Your task to perform on an android device: Open Google Chrome and open the bookmarks view Image 0: 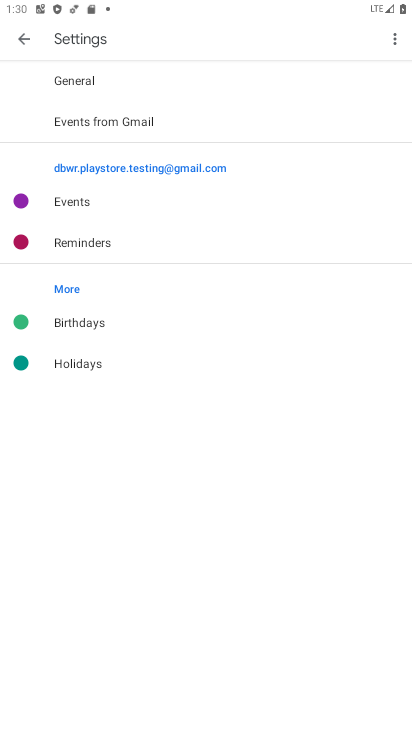
Step 0: press home button
Your task to perform on an android device: Open Google Chrome and open the bookmarks view Image 1: 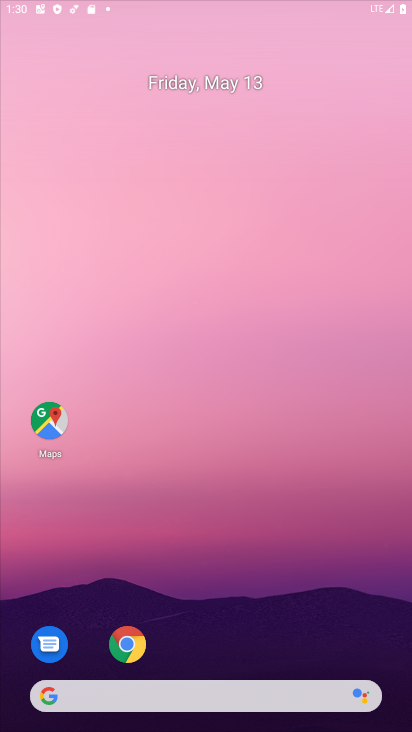
Step 1: drag from (310, 632) to (284, 42)
Your task to perform on an android device: Open Google Chrome and open the bookmarks view Image 2: 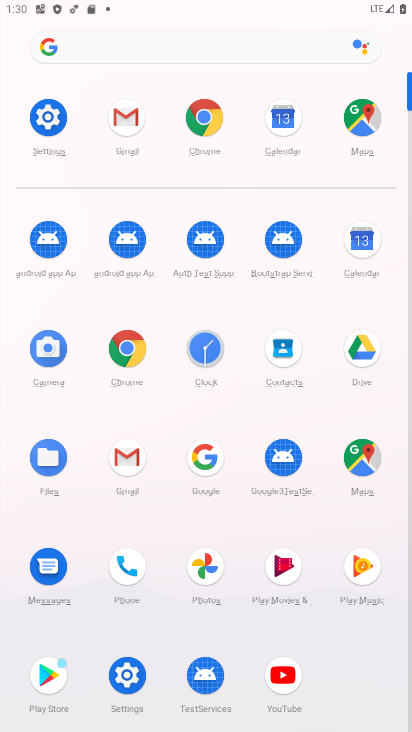
Step 2: click (130, 358)
Your task to perform on an android device: Open Google Chrome and open the bookmarks view Image 3: 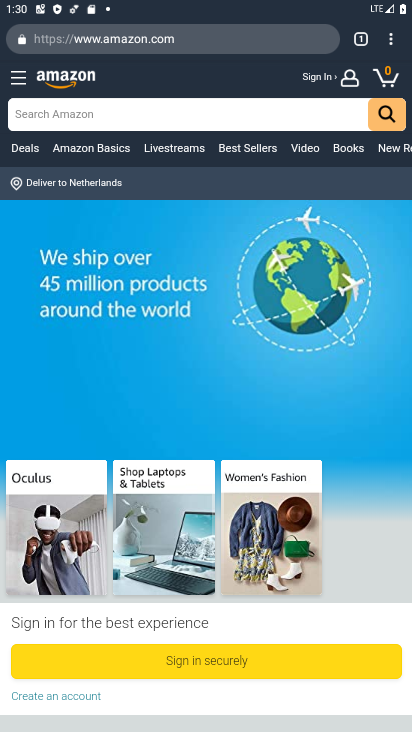
Step 3: press back button
Your task to perform on an android device: Open Google Chrome and open the bookmarks view Image 4: 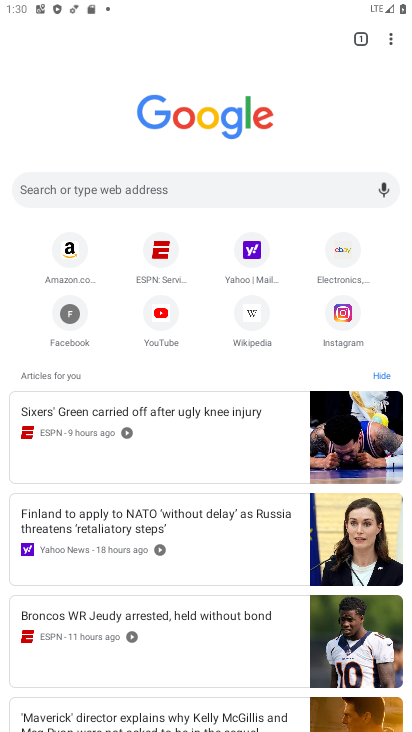
Step 4: click (393, 37)
Your task to perform on an android device: Open Google Chrome and open the bookmarks view Image 5: 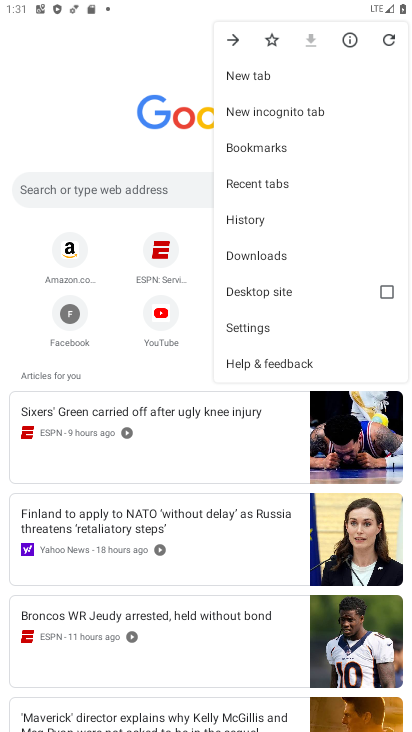
Step 5: click (277, 144)
Your task to perform on an android device: Open Google Chrome and open the bookmarks view Image 6: 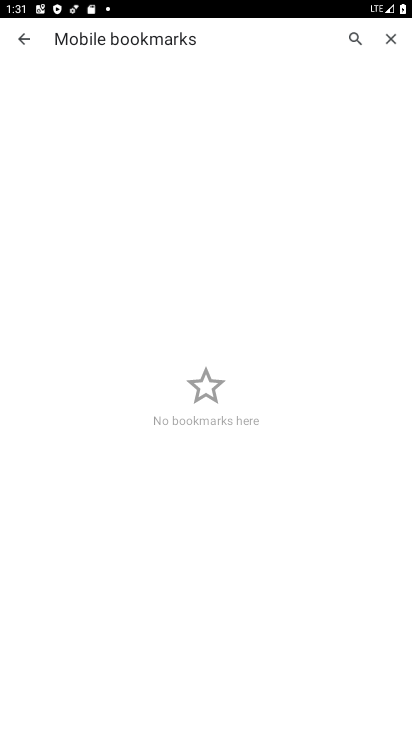
Step 6: task complete